Your task to perform on an android device: turn on sleep mode Image 0: 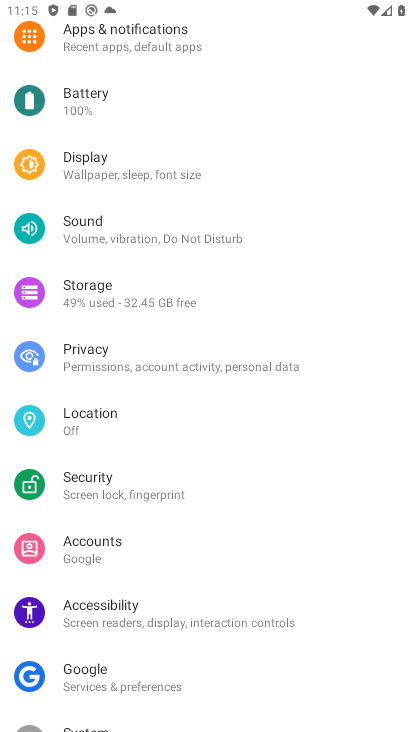
Step 0: press home button
Your task to perform on an android device: turn on sleep mode Image 1: 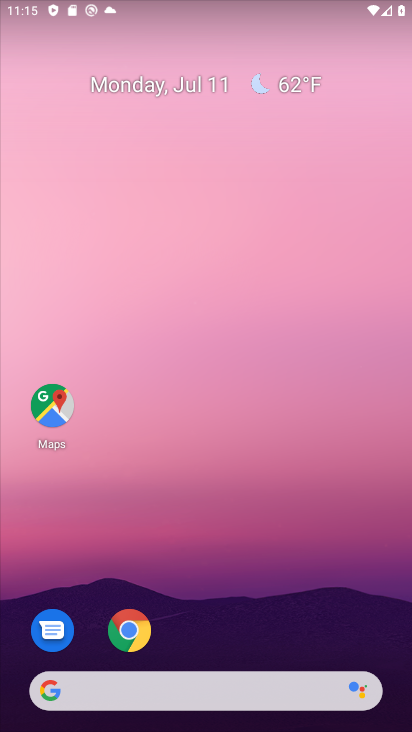
Step 1: drag from (262, 675) to (312, 34)
Your task to perform on an android device: turn on sleep mode Image 2: 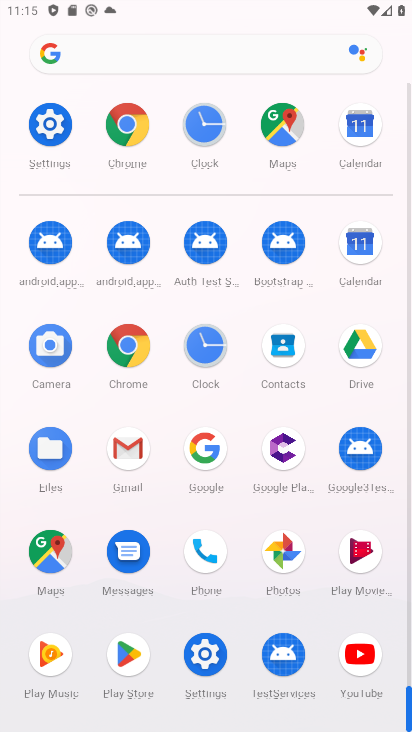
Step 2: click (59, 126)
Your task to perform on an android device: turn on sleep mode Image 3: 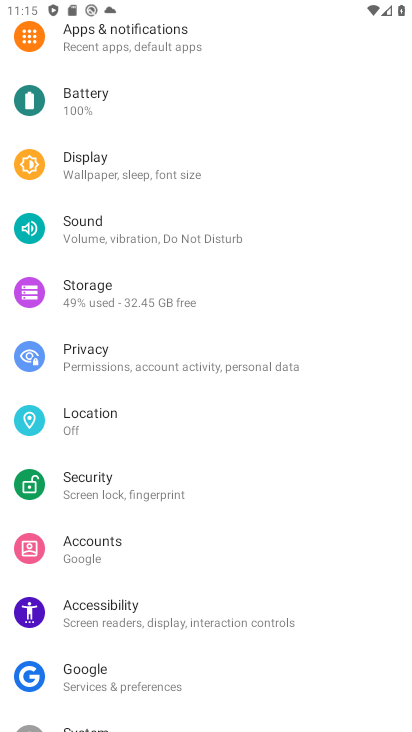
Step 3: drag from (223, 247) to (246, 700)
Your task to perform on an android device: turn on sleep mode Image 4: 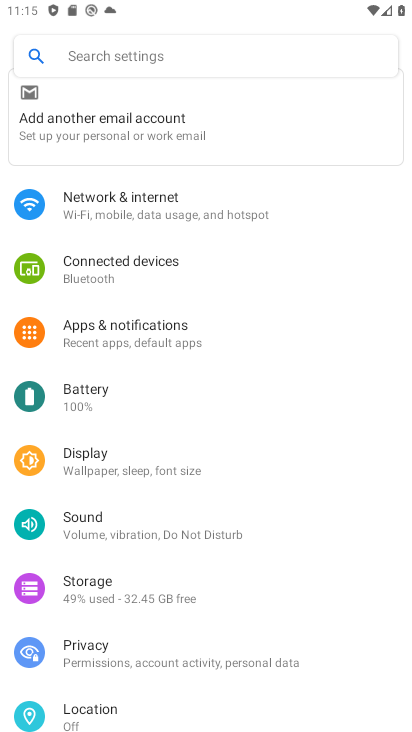
Step 4: click (133, 463)
Your task to perform on an android device: turn on sleep mode Image 5: 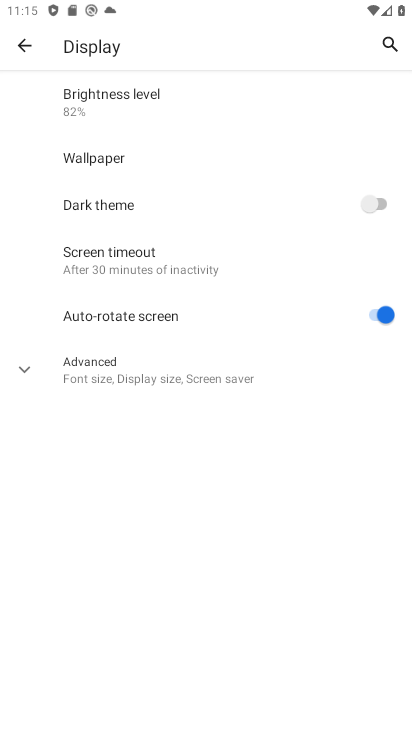
Step 5: task complete